Your task to perform on an android device: Open Google Chrome Image 0: 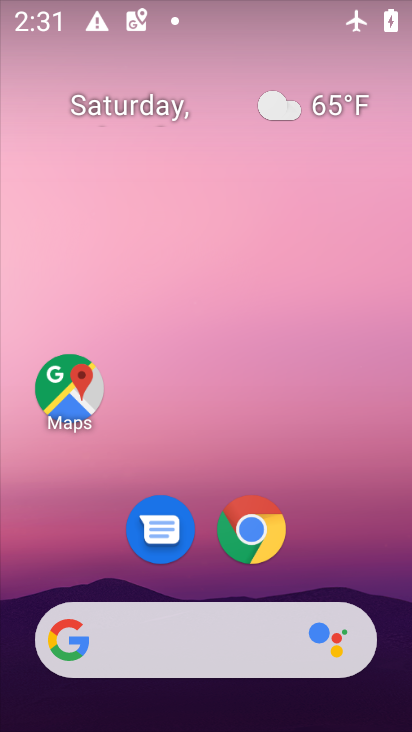
Step 0: click (263, 527)
Your task to perform on an android device: Open Google Chrome Image 1: 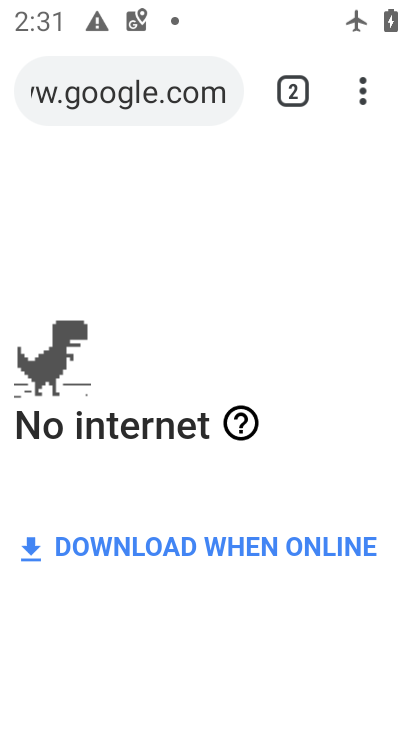
Step 1: task complete